Your task to perform on an android device: Search for "razer deathadder" on bestbuy.com, select the first entry, add it to the cart, then select checkout. Image 0: 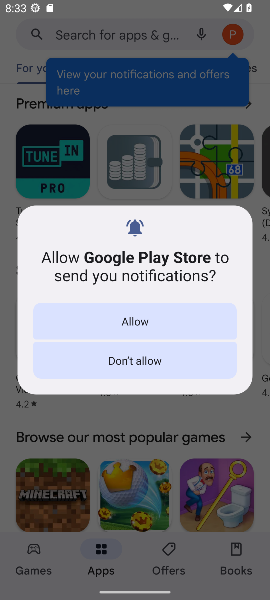
Step 0: press home button
Your task to perform on an android device: Search for "razer deathadder" on bestbuy.com, select the first entry, add it to the cart, then select checkout. Image 1: 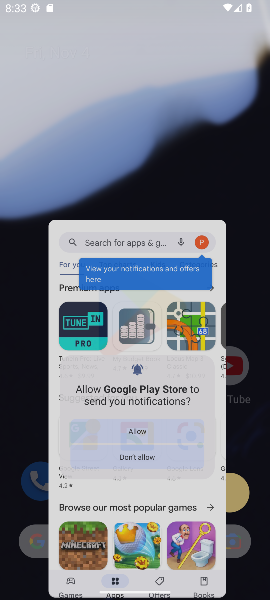
Step 1: press home button
Your task to perform on an android device: Search for "razer deathadder" on bestbuy.com, select the first entry, add it to the cart, then select checkout. Image 2: 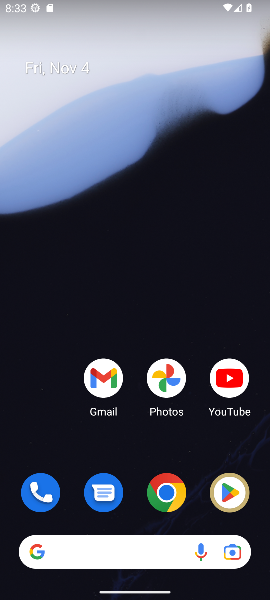
Step 2: drag from (135, 457) to (143, 16)
Your task to perform on an android device: Search for "razer deathadder" on bestbuy.com, select the first entry, add it to the cart, then select checkout. Image 3: 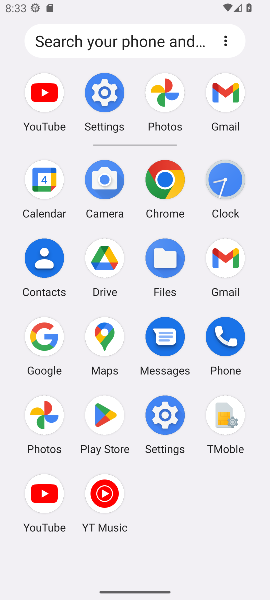
Step 3: click (165, 178)
Your task to perform on an android device: Search for "razer deathadder" on bestbuy.com, select the first entry, add it to the cart, then select checkout. Image 4: 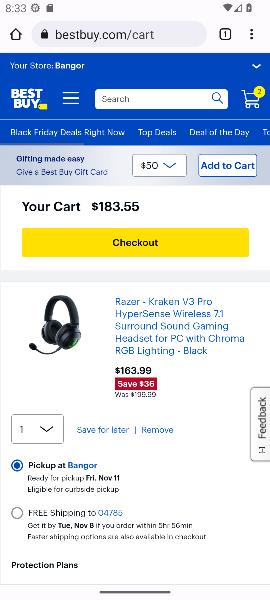
Step 4: click (159, 97)
Your task to perform on an android device: Search for "razer deathadder" on bestbuy.com, select the first entry, add it to the cart, then select checkout. Image 5: 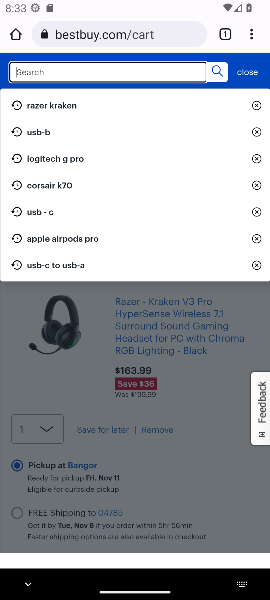
Step 5: type "razer deathadder"
Your task to perform on an android device: Search for "razer deathadder" on bestbuy.com, select the first entry, add it to the cart, then select checkout. Image 6: 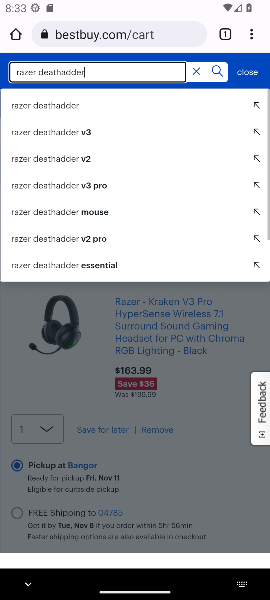
Step 6: press enter
Your task to perform on an android device: Search for "razer deathadder" on bestbuy.com, select the first entry, add it to the cart, then select checkout. Image 7: 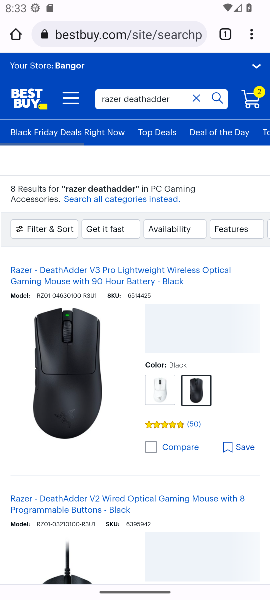
Step 7: click (54, 277)
Your task to perform on an android device: Search for "razer deathadder" on bestbuy.com, select the first entry, add it to the cart, then select checkout. Image 8: 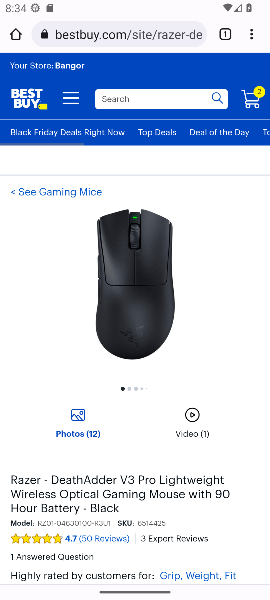
Step 8: drag from (171, 451) to (185, 111)
Your task to perform on an android device: Search for "razer deathadder" on bestbuy.com, select the first entry, add it to the cart, then select checkout. Image 9: 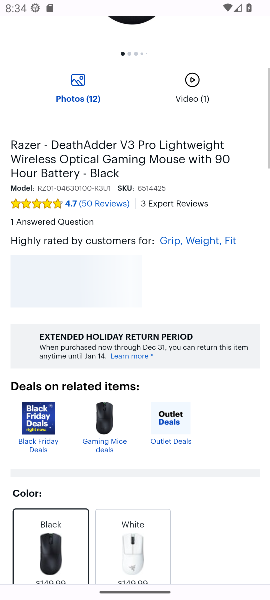
Step 9: drag from (155, 461) to (198, 97)
Your task to perform on an android device: Search for "razer deathadder" on bestbuy.com, select the first entry, add it to the cart, then select checkout. Image 10: 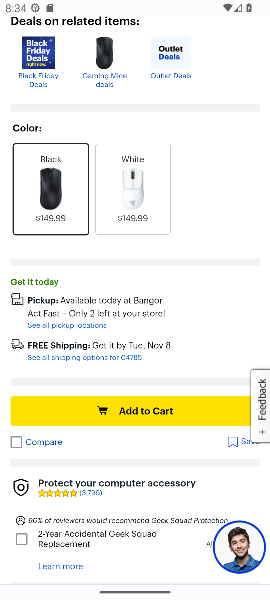
Step 10: click (165, 412)
Your task to perform on an android device: Search for "razer deathadder" on bestbuy.com, select the first entry, add it to the cart, then select checkout. Image 11: 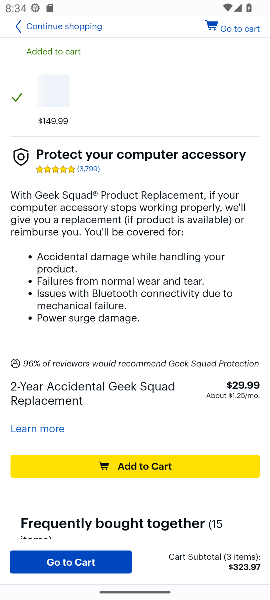
Step 11: click (86, 561)
Your task to perform on an android device: Search for "razer deathadder" on bestbuy.com, select the first entry, add it to the cart, then select checkout. Image 12: 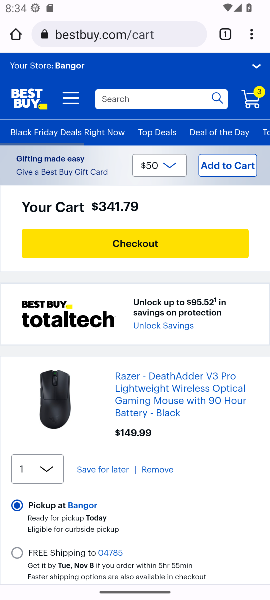
Step 12: click (165, 240)
Your task to perform on an android device: Search for "razer deathadder" on bestbuy.com, select the first entry, add it to the cart, then select checkout. Image 13: 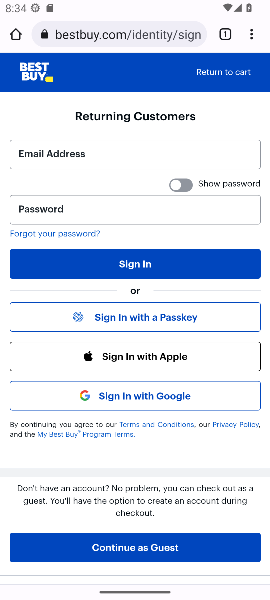
Step 13: task complete